Your task to perform on an android device: Open eBay Image 0: 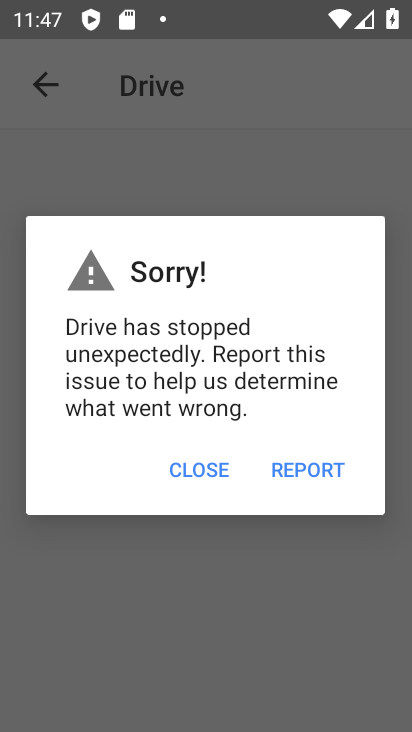
Step 0: press home button
Your task to perform on an android device: Open eBay Image 1: 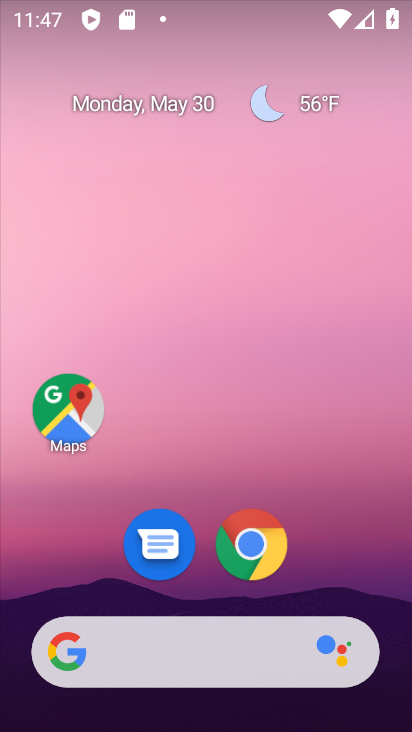
Step 1: click (196, 657)
Your task to perform on an android device: Open eBay Image 2: 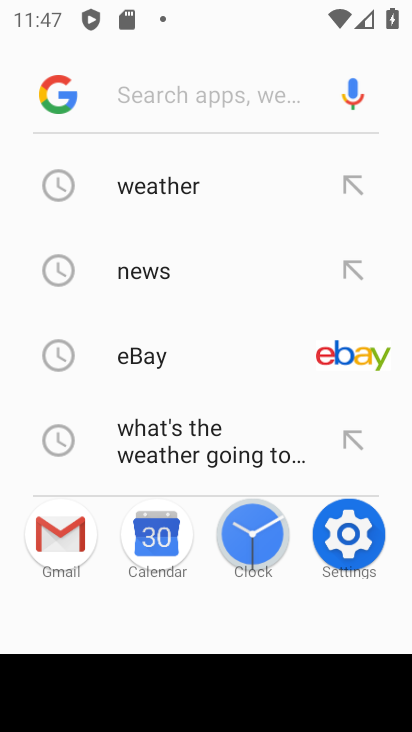
Step 2: click (125, 346)
Your task to perform on an android device: Open eBay Image 3: 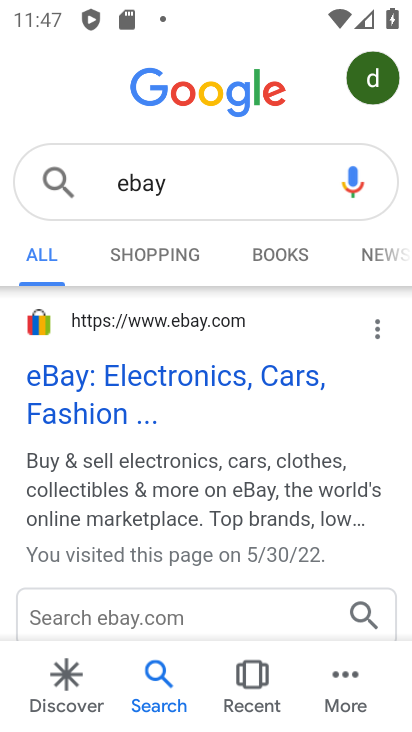
Step 3: task complete